Your task to perform on an android device: see sites visited before in the chrome app Image 0: 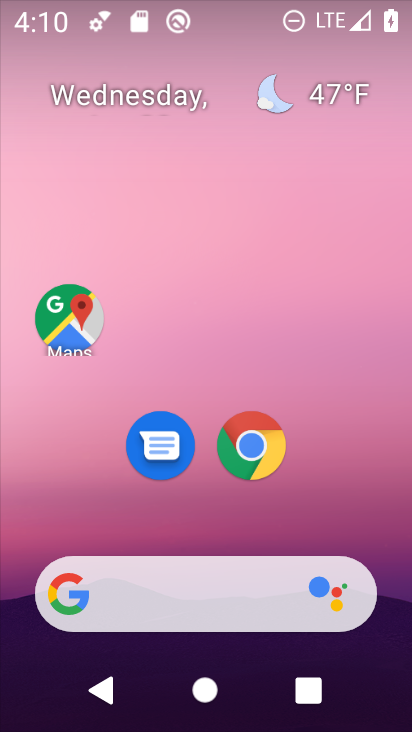
Step 0: click (259, 443)
Your task to perform on an android device: see sites visited before in the chrome app Image 1: 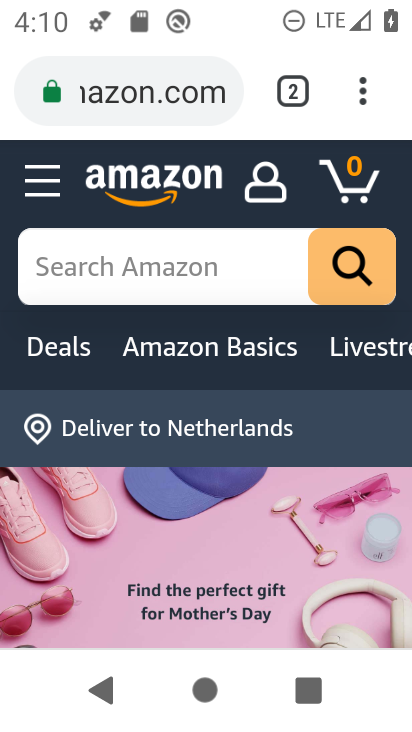
Step 1: click (370, 89)
Your task to perform on an android device: see sites visited before in the chrome app Image 2: 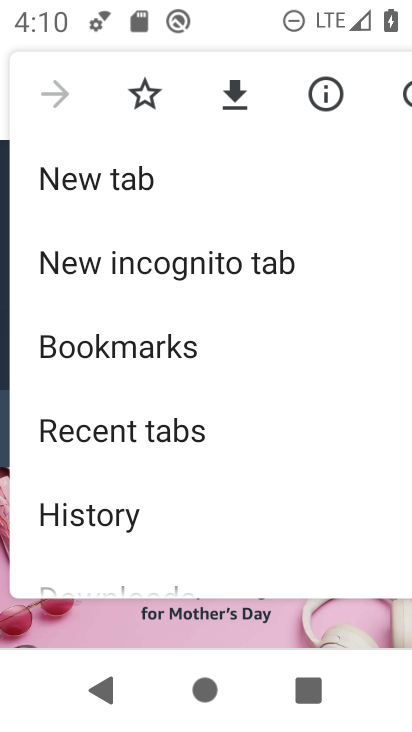
Step 2: click (114, 517)
Your task to perform on an android device: see sites visited before in the chrome app Image 3: 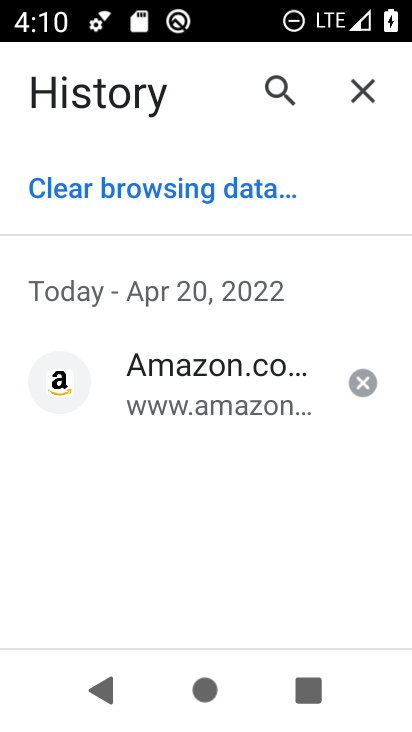
Step 3: task complete